Your task to perform on an android device: Search for hotels in Denver Image 0: 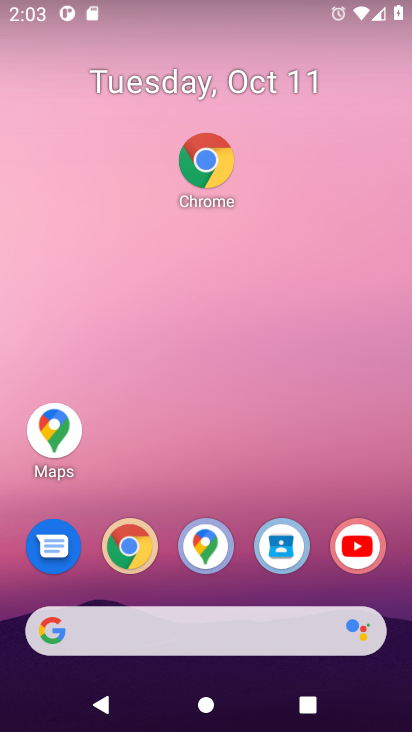
Step 0: click (133, 552)
Your task to perform on an android device: Search for hotels in Denver Image 1: 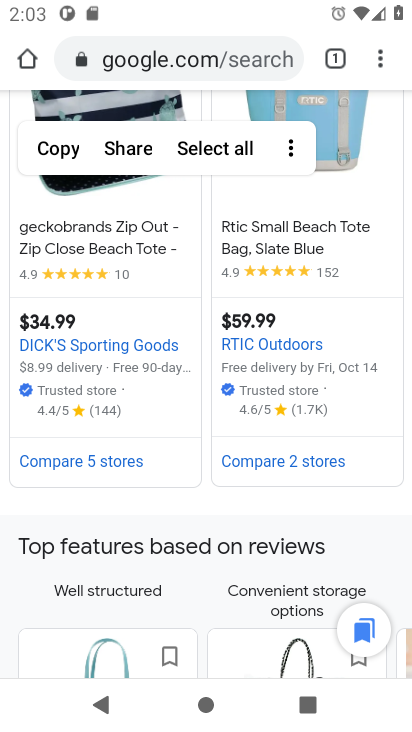
Step 1: click (190, 61)
Your task to perform on an android device: Search for hotels in Denver Image 2: 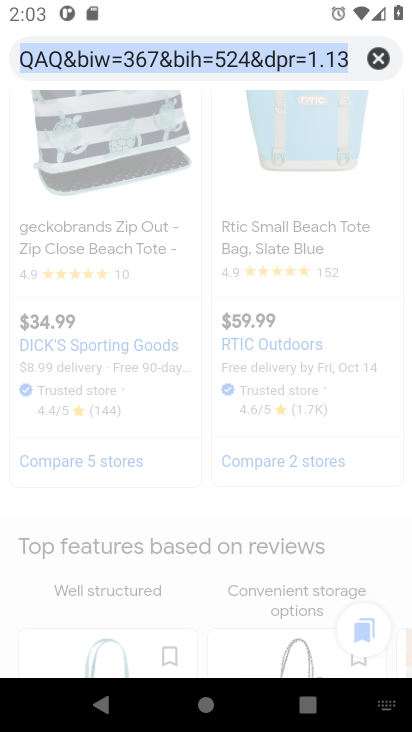
Step 2: type "hotels in Denver"
Your task to perform on an android device: Search for hotels in Denver Image 3: 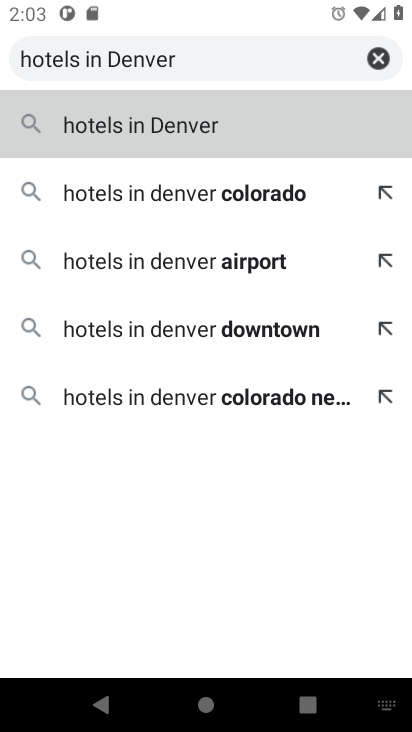
Step 3: type ""
Your task to perform on an android device: Search for hotels in Denver Image 4: 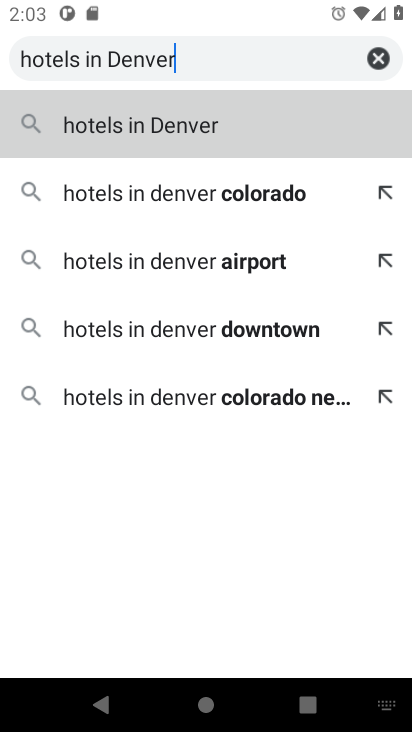
Step 4: press enter
Your task to perform on an android device: Search for hotels in Denver Image 5: 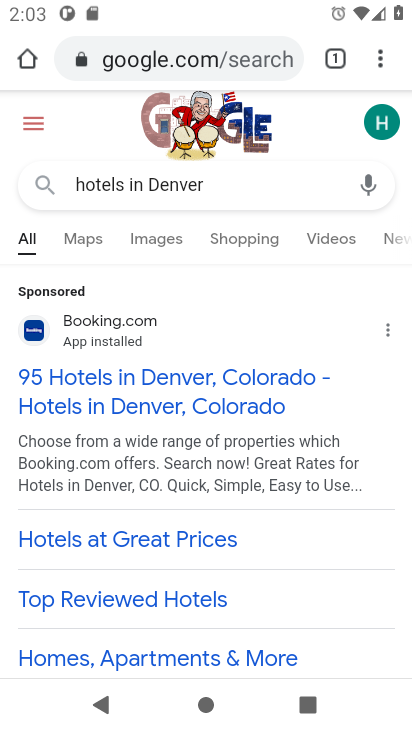
Step 5: click (154, 396)
Your task to perform on an android device: Search for hotels in Denver Image 6: 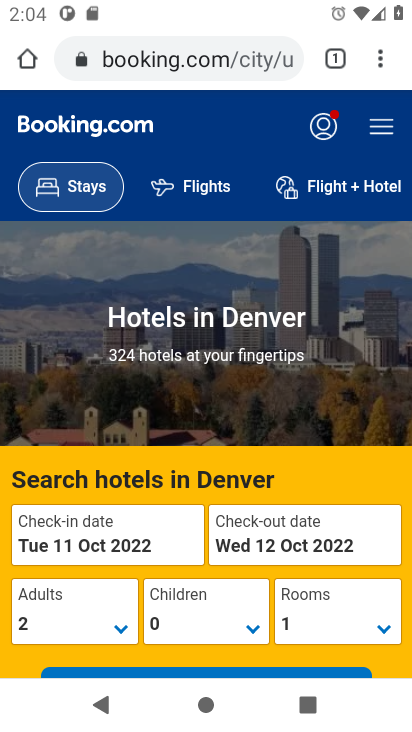
Step 6: drag from (291, 491) to (278, 193)
Your task to perform on an android device: Search for hotels in Denver Image 7: 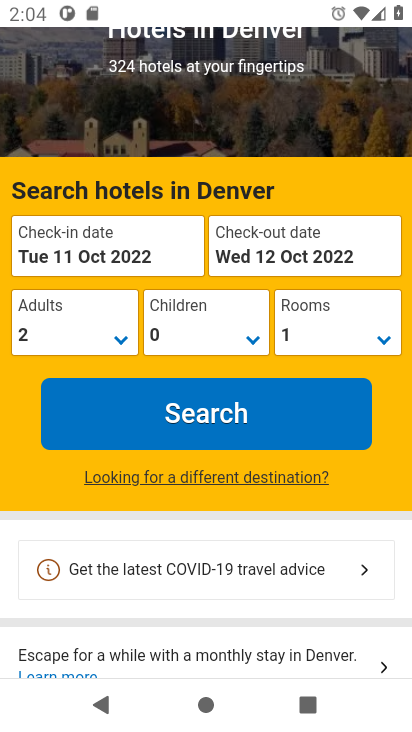
Step 7: drag from (292, 543) to (302, 144)
Your task to perform on an android device: Search for hotels in Denver Image 8: 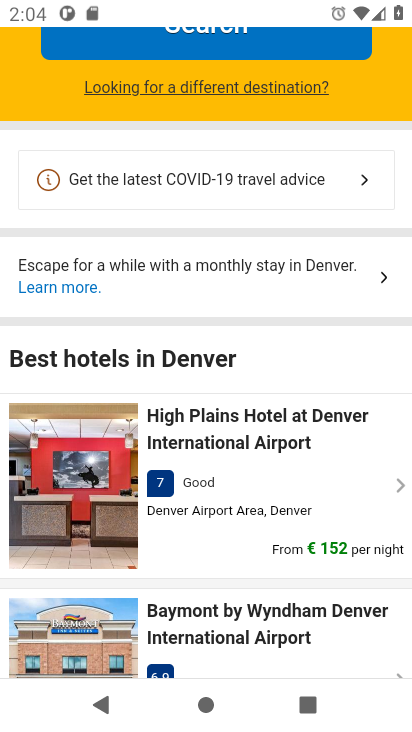
Step 8: drag from (319, 570) to (345, 123)
Your task to perform on an android device: Search for hotels in Denver Image 9: 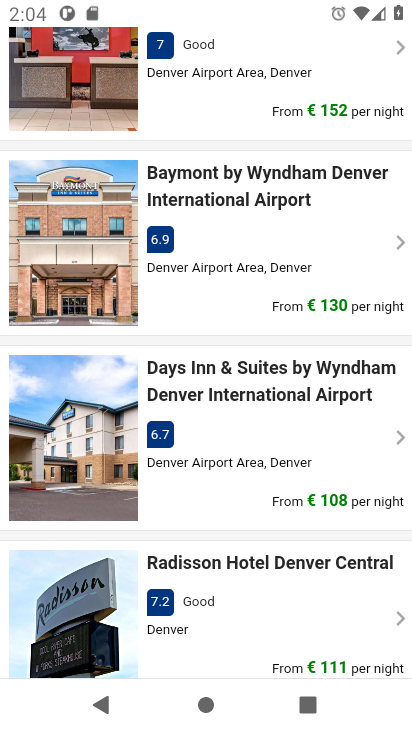
Step 9: drag from (269, 577) to (351, 108)
Your task to perform on an android device: Search for hotels in Denver Image 10: 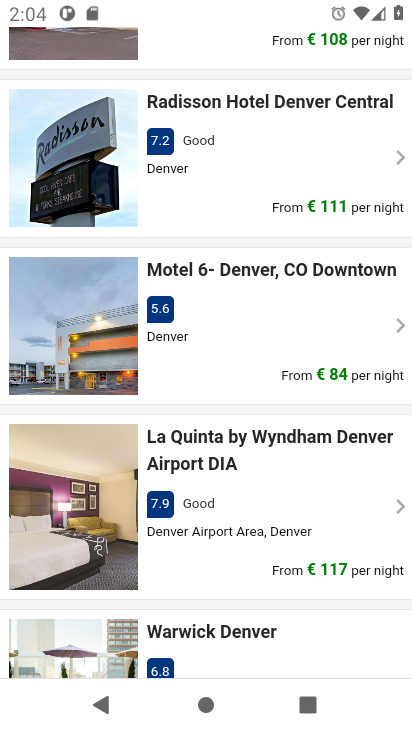
Step 10: drag from (309, 641) to (336, 47)
Your task to perform on an android device: Search for hotels in Denver Image 11: 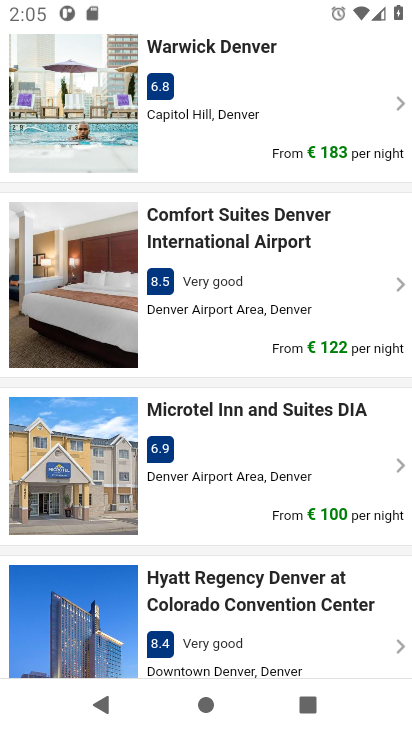
Step 11: drag from (281, 645) to (275, 500)
Your task to perform on an android device: Search for hotels in Denver Image 12: 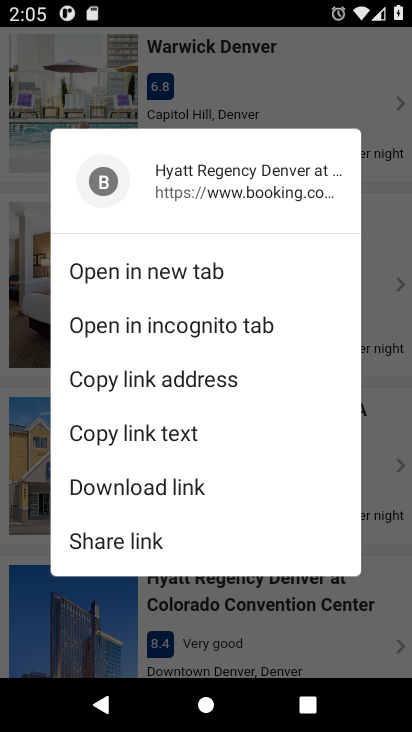
Step 12: click (380, 472)
Your task to perform on an android device: Search for hotels in Denver Image 13: 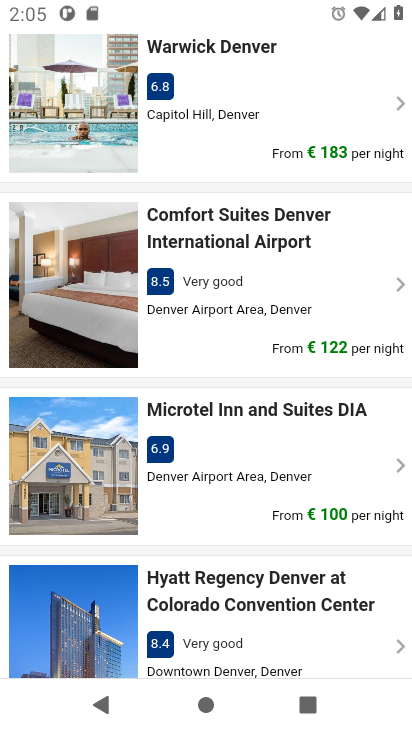
Step 13: task complete